Your task to perform on an android device: turn on location history Image 0: 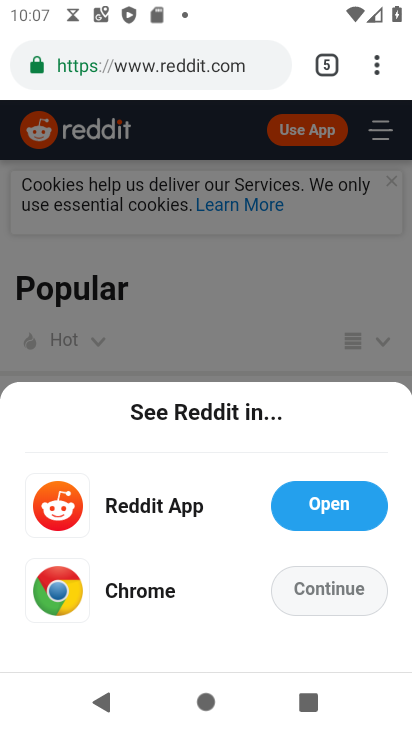
Step 0: press home button
Your task to perform on an android device: turn on location history Image 1: 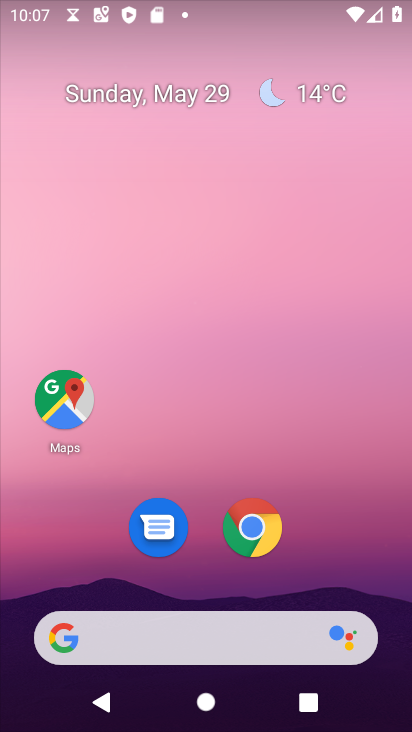
Step 1: click (66, 405)
Your task to perform on an android device: turn on location history Image 2: 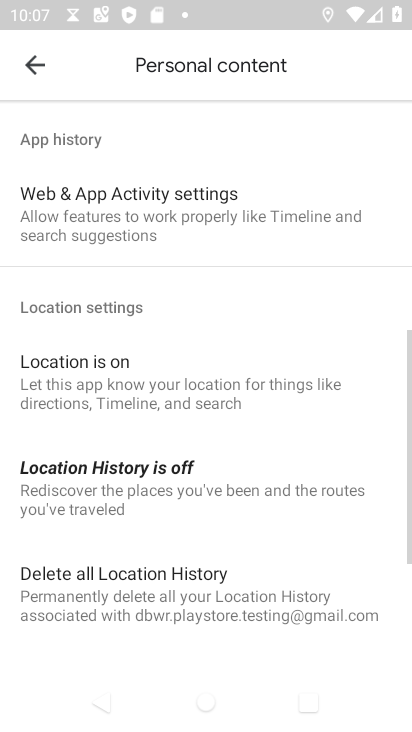
Step 2: click (160, 488)
Your task to perform on an android device: turn on location history Image 3: 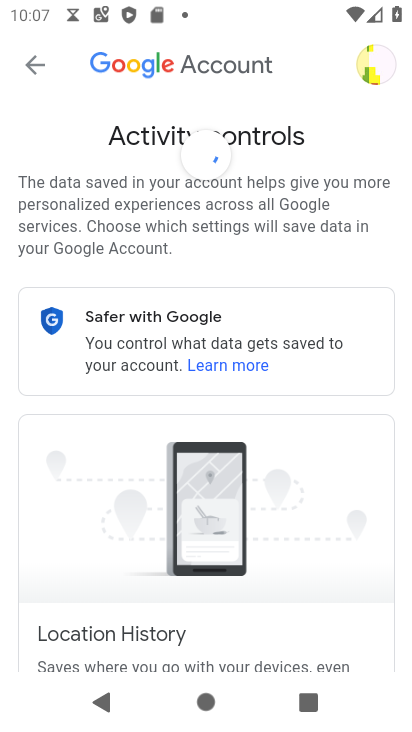
Step 3: drag from (242, 609) to (373, 122)
Your task to perform on an android device: turn on location history Image 4: 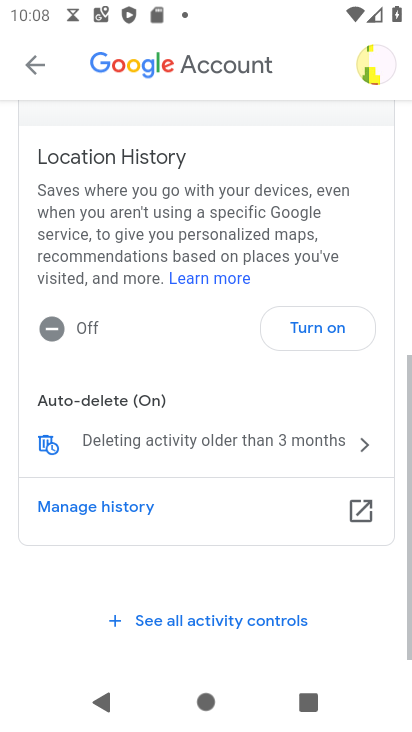
Step 4: click (311, 375)
Your task to perform on an android device: turn on location history Image 5: 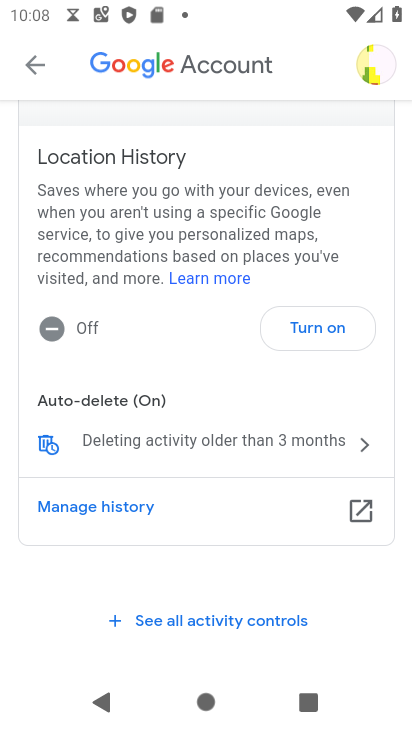
Step 5: click (312, 334)
Your task to perform on an android device: turn on location history Image 6: 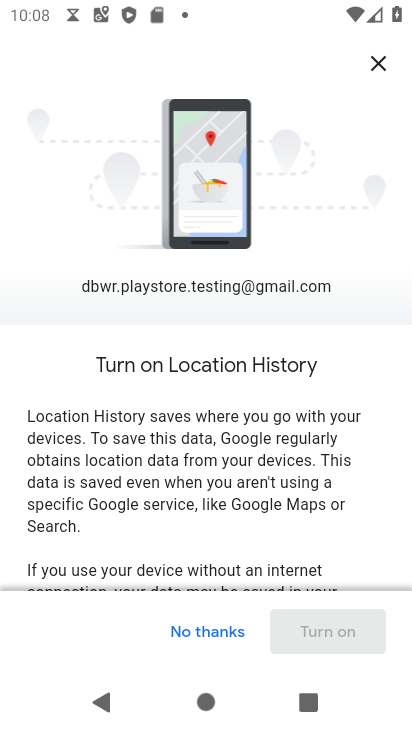
Step 6: drag from (232, 531) to (377, 108)
Your task to perform on an android device: turn on location history Image 7: 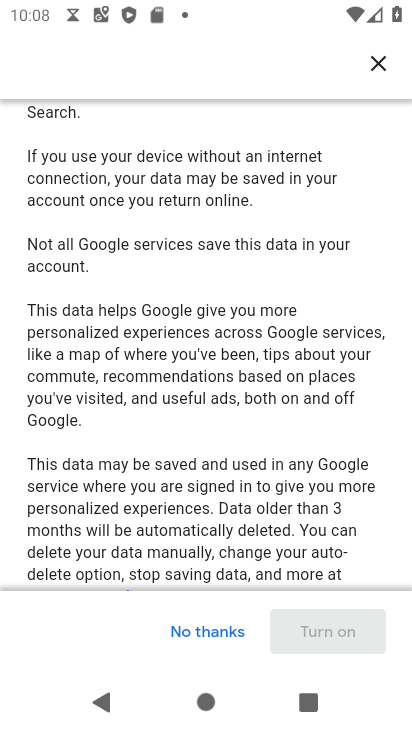
Step 7: drag from (265, 516) to (338, 121)
Your task to perform on an android device: turn on location history Image 8: 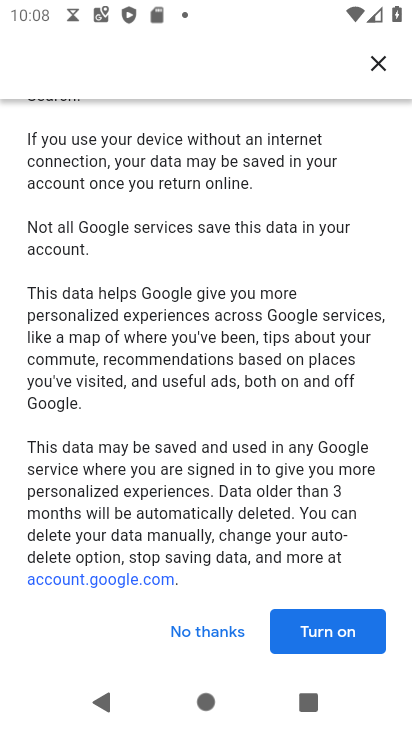
Step 8: click (335, 636)
Your task to perform on an android device: turn on location history Image 9: 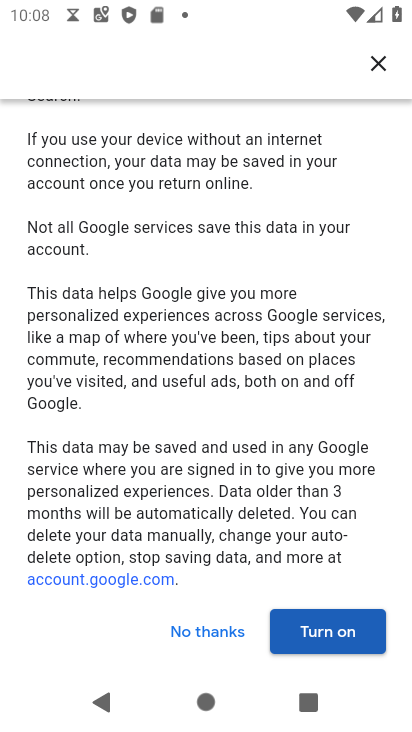
Step 9: click (341, 635)
Your task to perform on an android device: turn on location history Image 10: 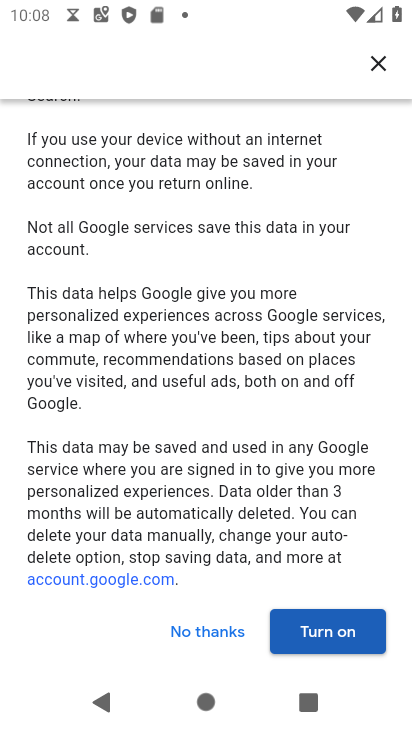
Step 10: click (320, 631)
Your task to perform on an android device: turn on location history Image 11: 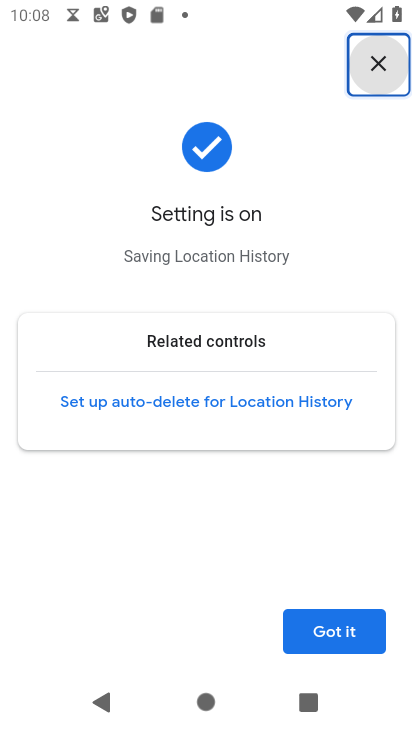
Step 11: click (343, 636)
Your task to perform on an android device: turn on location history Image 12: 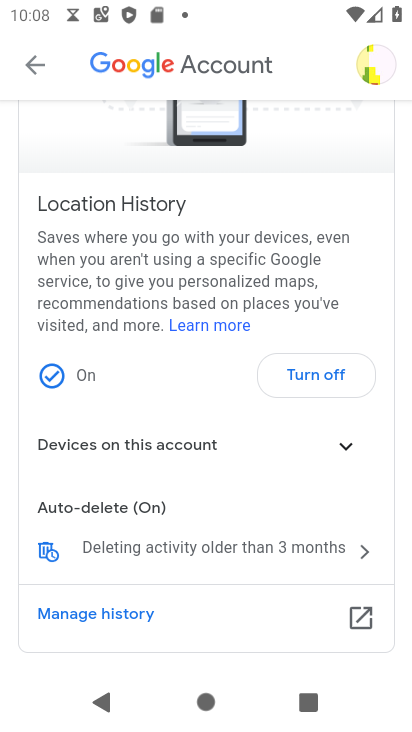
Step 12: task complete